Your task to perform on an android device: see sites visited before in the chrome app Image 0: 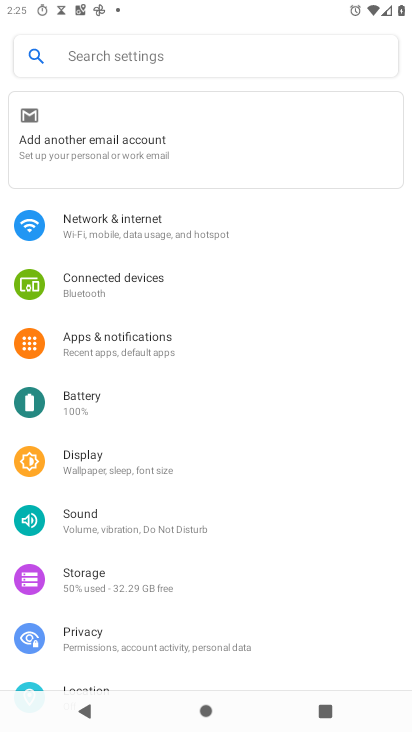
Step 0: press home button
Your task to perform on an android device: see sites visited before in the chrome app Image 1: 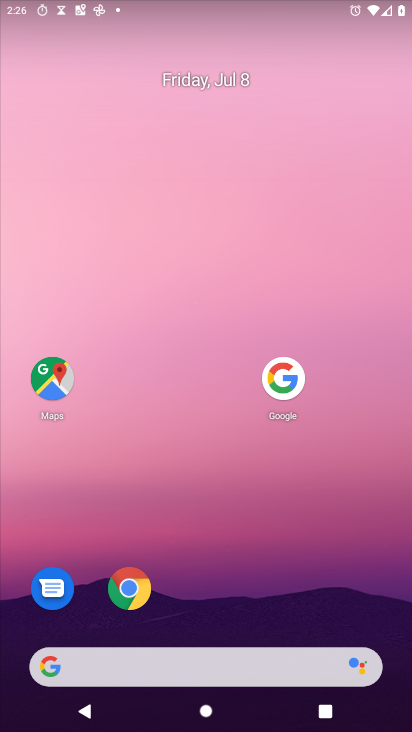
Step 1: click (123, 594)
Your task to perform on an android device: see sites visited before in the chrome app Image 2: 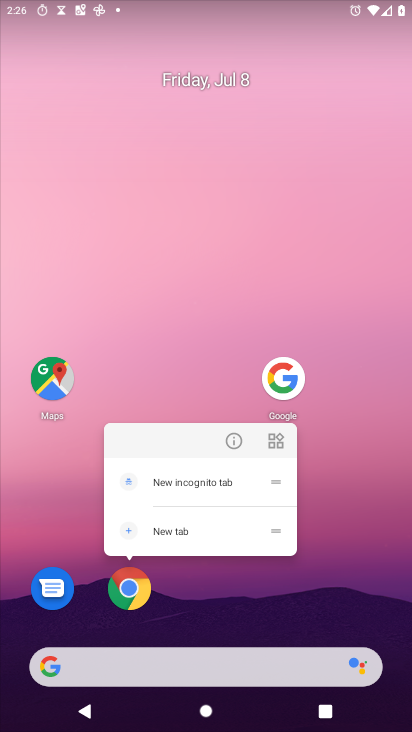
Step 2: click (135, 591)
Your task to perform on an android device: see sites visited before in the chrome app Image 3: 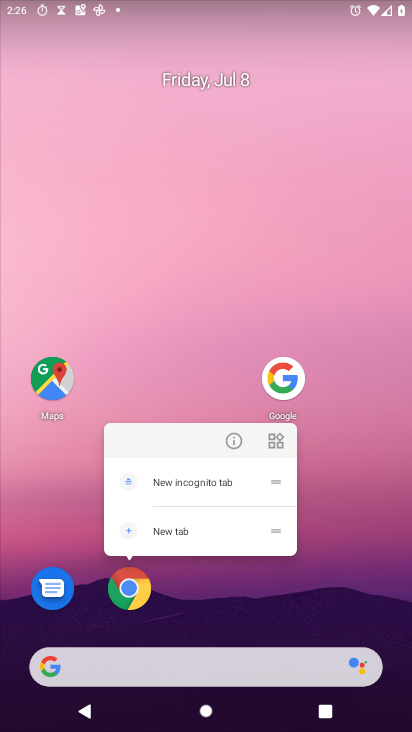
Step 3: click (122, 595)
Your task to perform on an android device: see sites visited before in the chrome app Image 4: 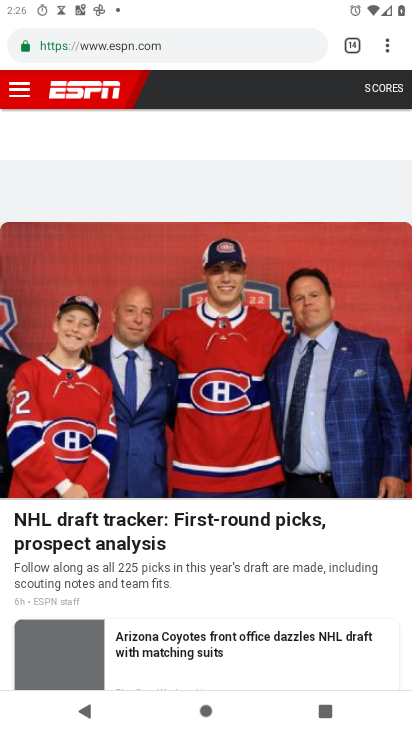
Step 4: task complete